Your task to perform on an android device: What's on my calendar today? Image 0: 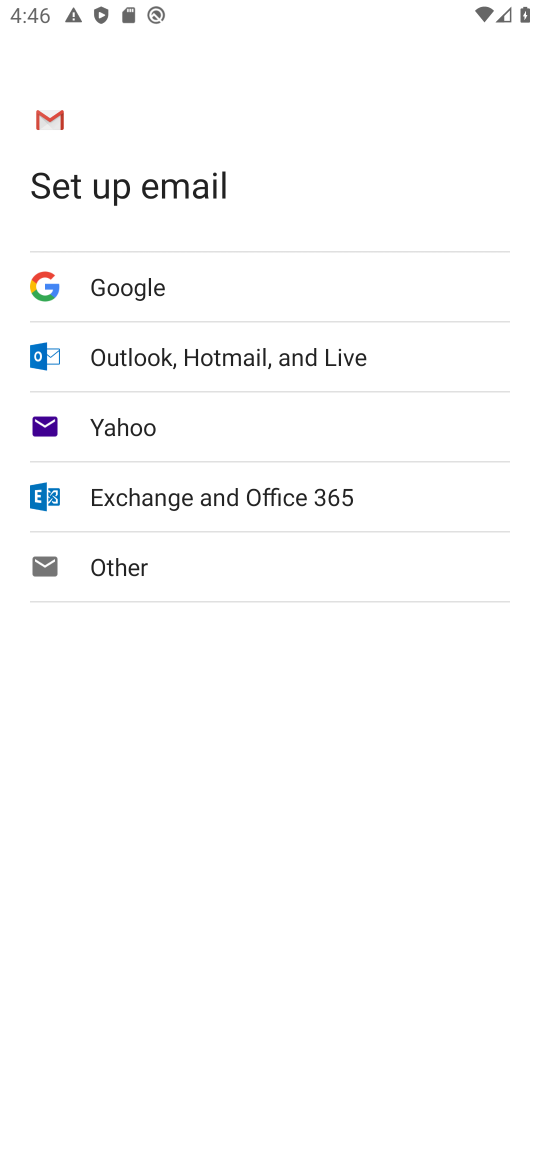
Step 0: press home button
Your task to perform on an android device: What's on my calendar today? Image 1: 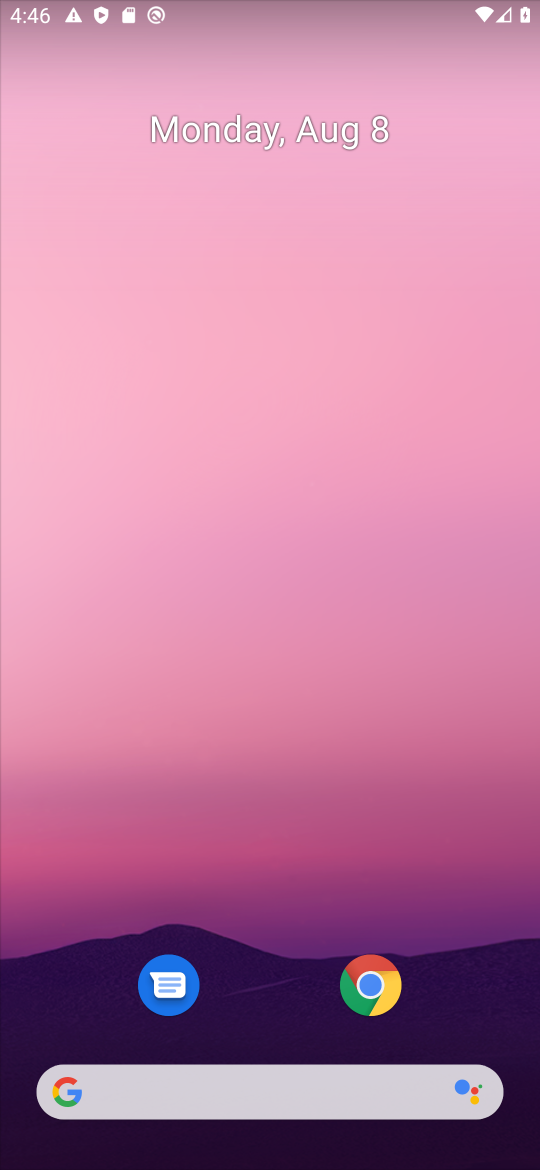
Step 1: drag from (306, 856) to (339, 200)
Your task to perform on an android device: What's on my calendar today? Image 2: 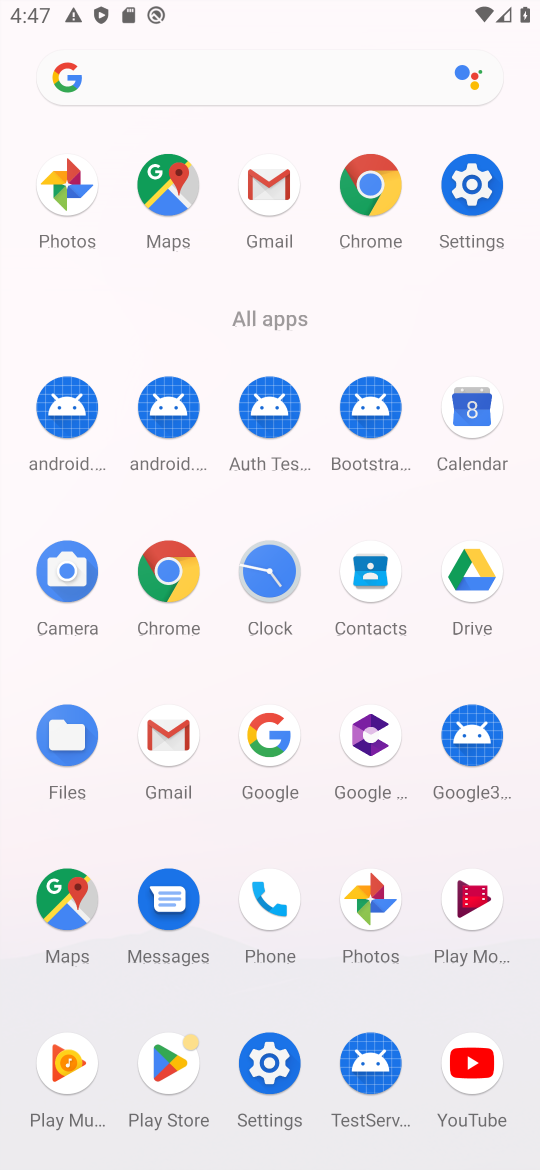
Step 2: click (486, 406)
Your task to perform on an android device: What's on my calendar today? Image 3: 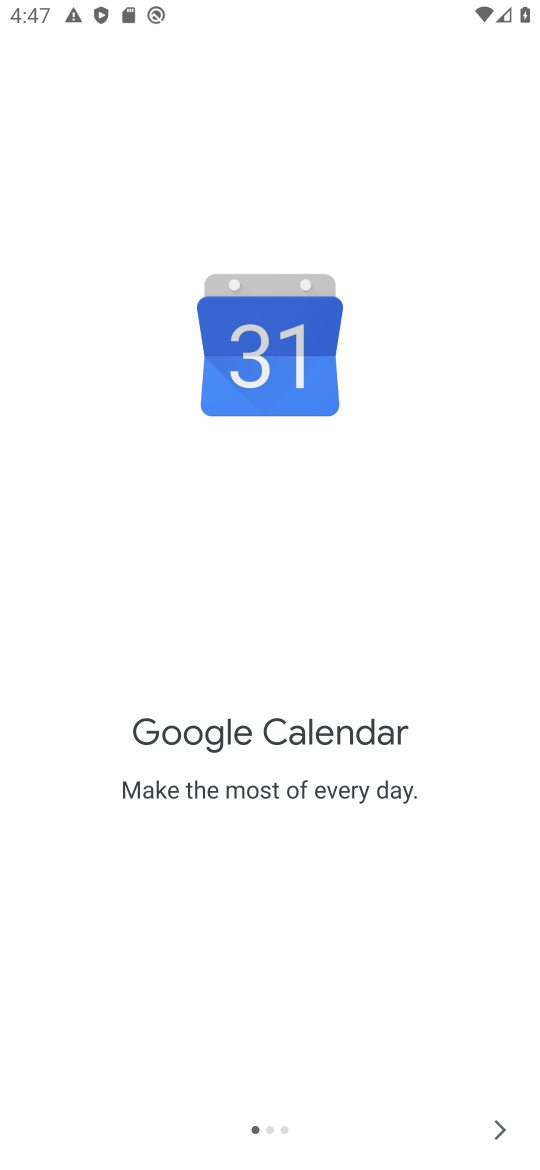
Step 3: click (488, 1133)
Your task to perform on an android device: What's on my calendar today? Image 4: 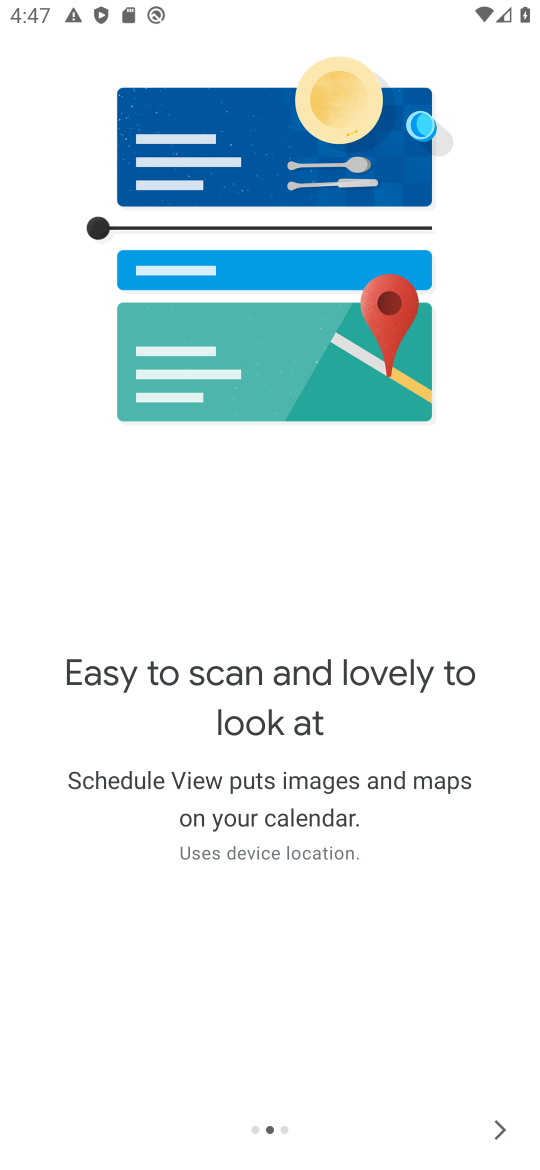
Step 4: click (491, 1133)
Your task to perform on an android device: What's on my calendar today? Image 5: 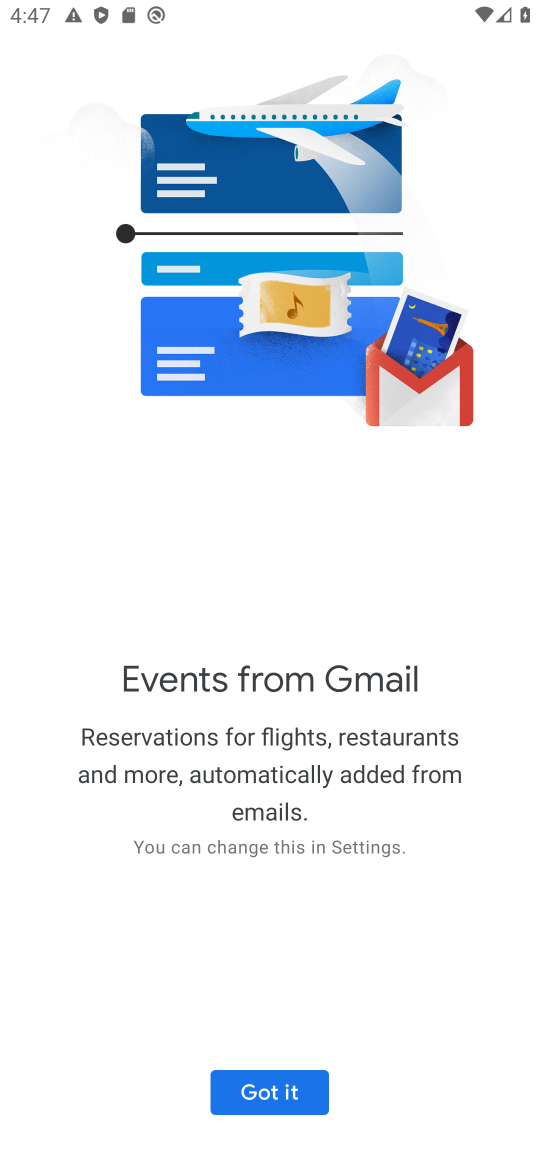
Step 5: click (491, 1133)
Your task to perform on an android device: What's on my calendar today? Image 6: 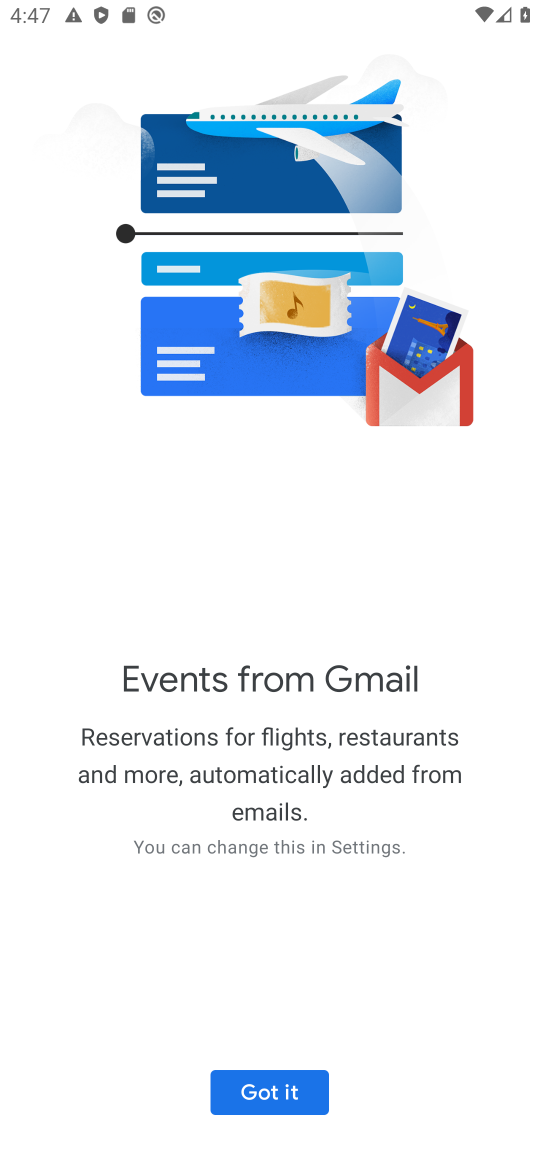
Step 6: click (303, 1095)
Your task to perform on an android device: What's on my calendar today? Image 7: 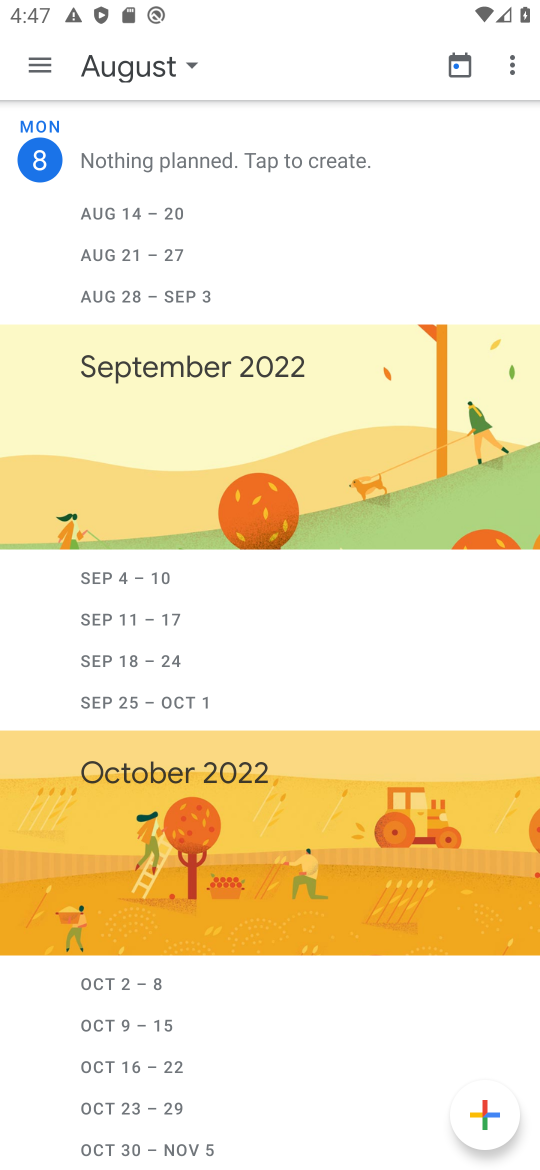
Step 7: task complete